Your task to perform on an android device: change the clock display to show seconds Image 0: 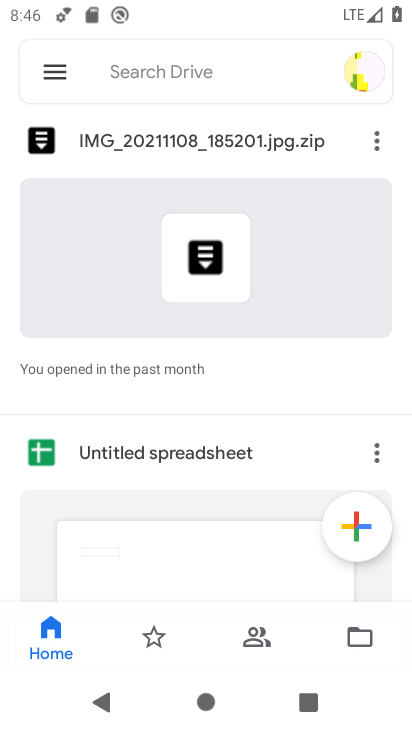
Step 0: press home button
Your task to perform on an android device: change the clock display to show seconds Image 1: 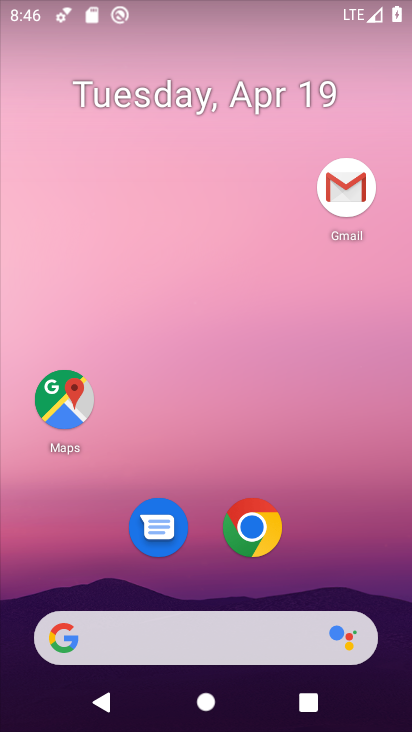
Step 1: drag from (352, 521) to (355, 123)
Your task to perform on an android device: change the clock display to show seconds Image 2: 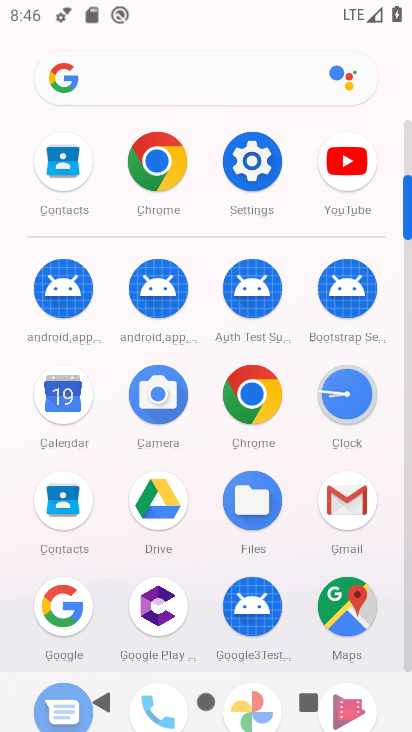
Step 2: click (328, 397)
Your task to perform on an android device: change the clock display to show seconds Image 3: 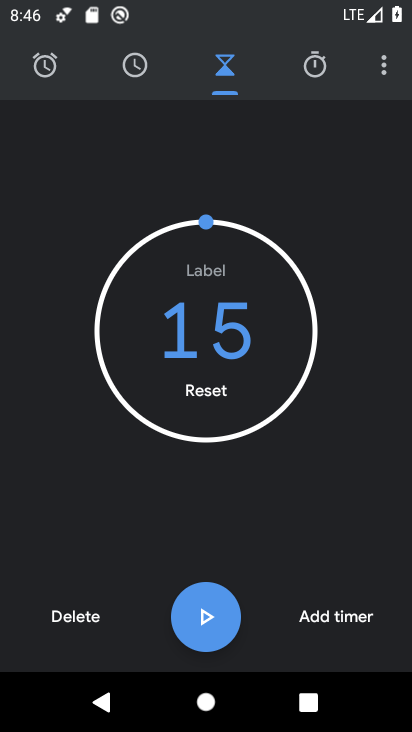
Step 3: click (380, 72)
Your task to perform on an android device: change the clock display to show seconds Image 4: 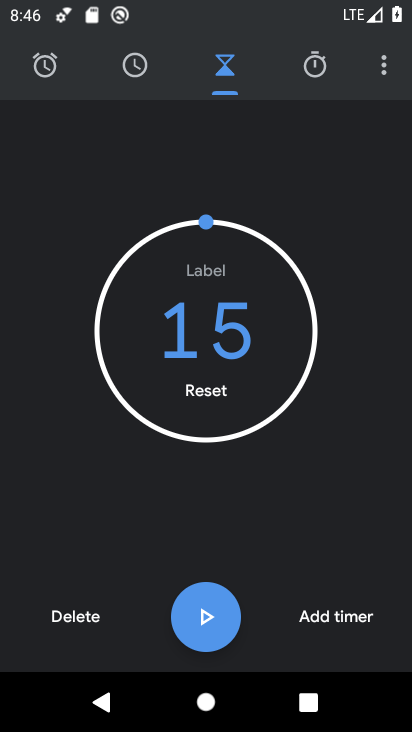
Step 4: click (388, 75)
Your task to perform on an android device: change the clock display to show seconds Image 5: 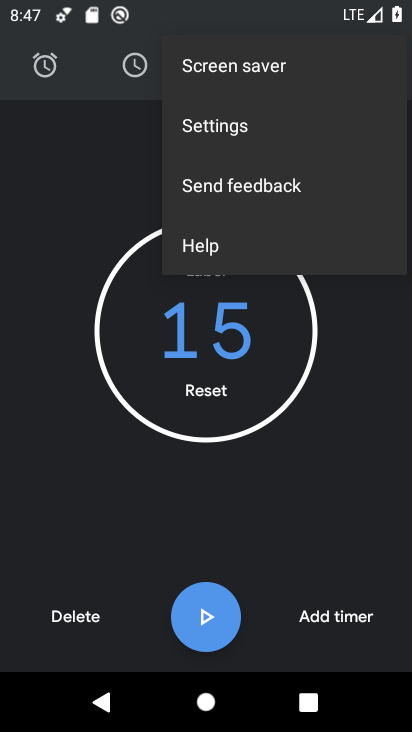
Step 5: click (216, 129)
Your task to perform on an android device: change the clock display to show seconds Image 6: 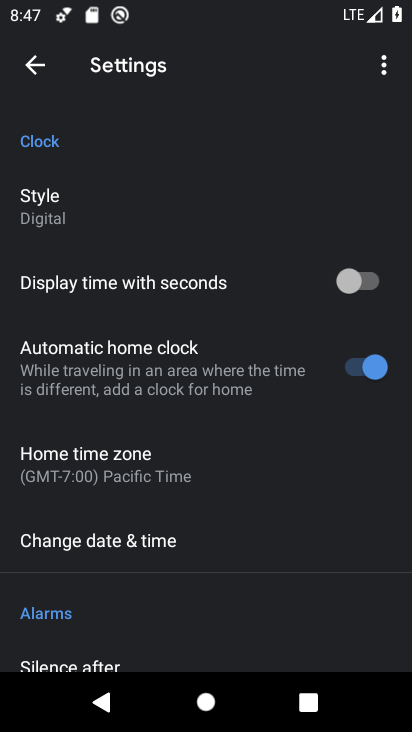
Step 6: click (368, 286)
Your task to perform on an android device: change the clock display to show seconds Image 7: 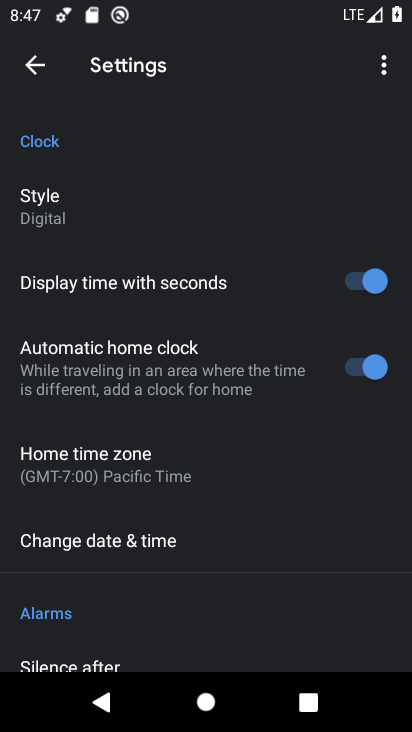
Step 7: task complete